Your task to perform on an android device: turn pop-ups off in chrome Image 0: 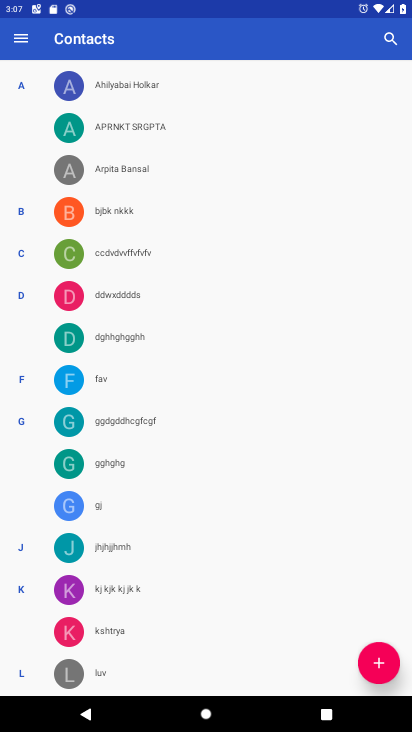
Step 0: press home button
Your task to perform on an android device: turn pop-ups off in chrome Image 1: 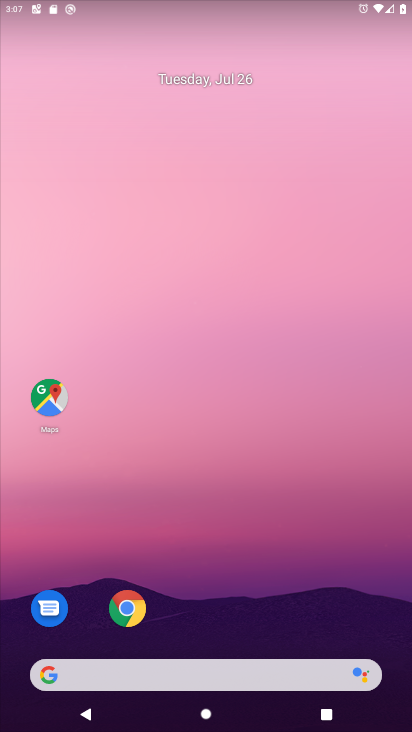
Step 1: click (137, 607)
Your task to perform on an android device: turn pop-ups off in chrome Image 2: 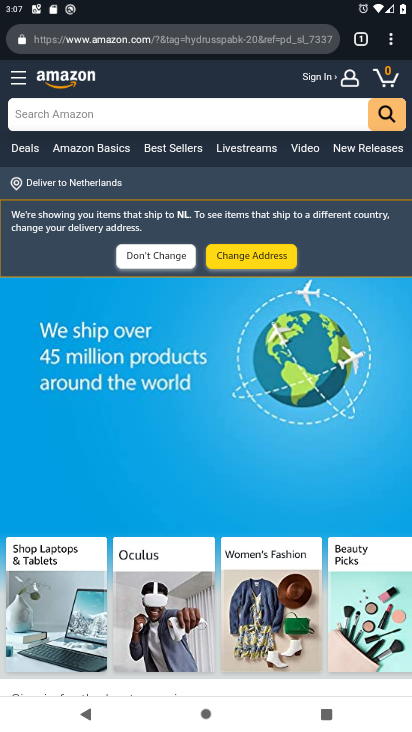
Step 2: click (389, 39)
Your task to perform on an android device: turn pop-ups off in chrome Image 3: 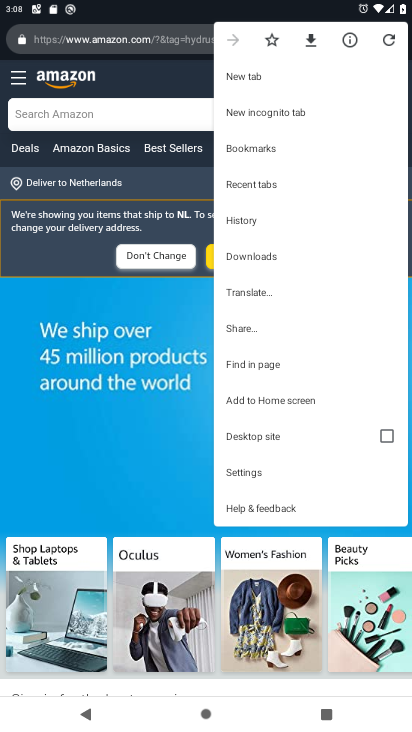
Step 3: click (244, 476)
Your task to perform on an android device: turn pop-ups off in chrome Image 4: 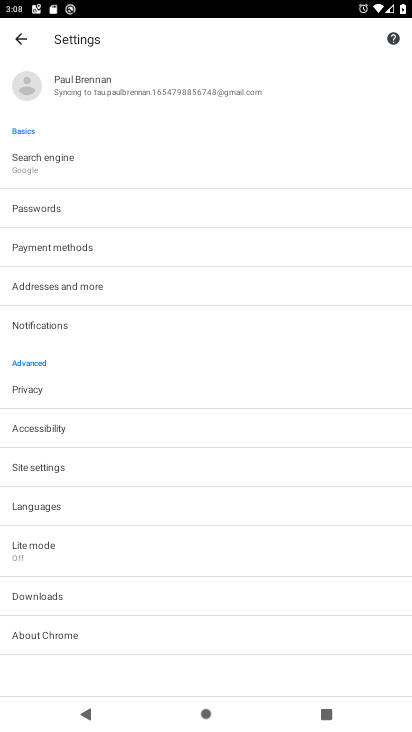
Step 4: click (52, 459)
Your task to perform on an android device: turn pop-ups off in chrome Image 5: 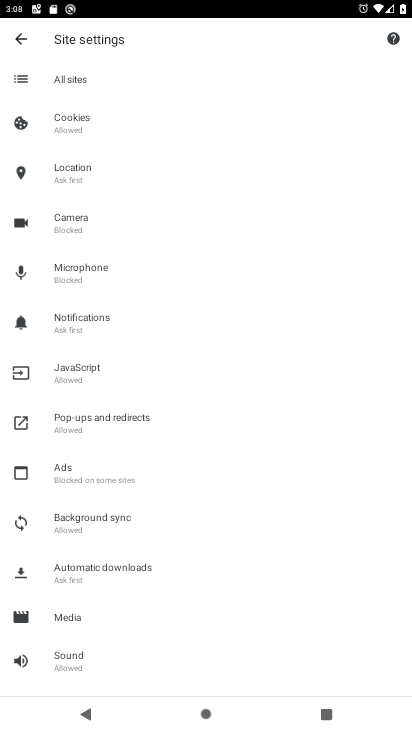
Step 5: click (73, 428)
Your task to perform on an android device: turn pop-ups off in chrome Image 6: 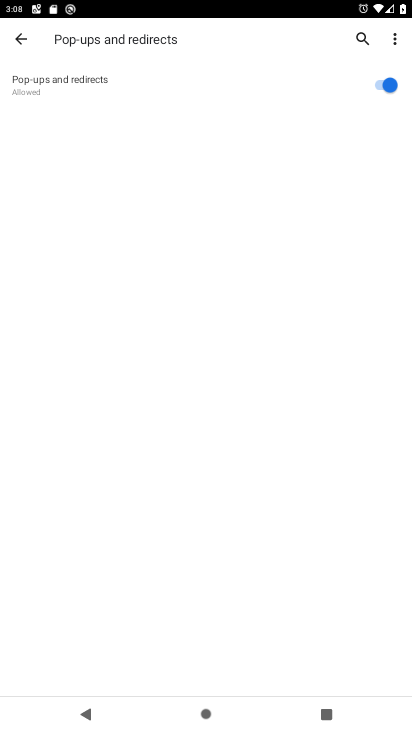
Step 6: click (388, 75)
Your task to perform on an android device: turn pop-ups off in chrome Image 7: 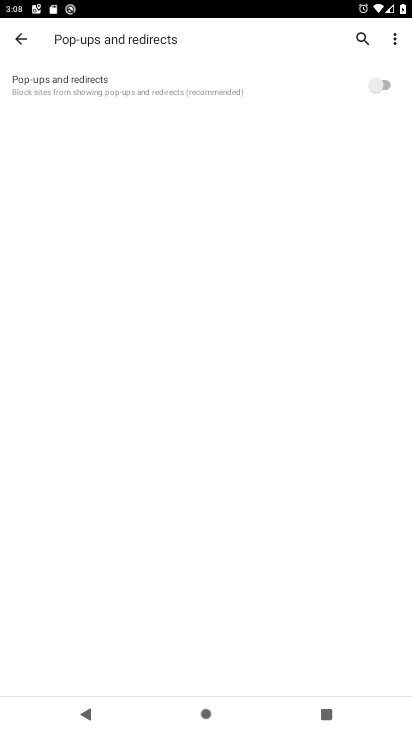
Step 7: task complete